Your task to perform on an android device: turn pop-ups off in chrome Image 0: 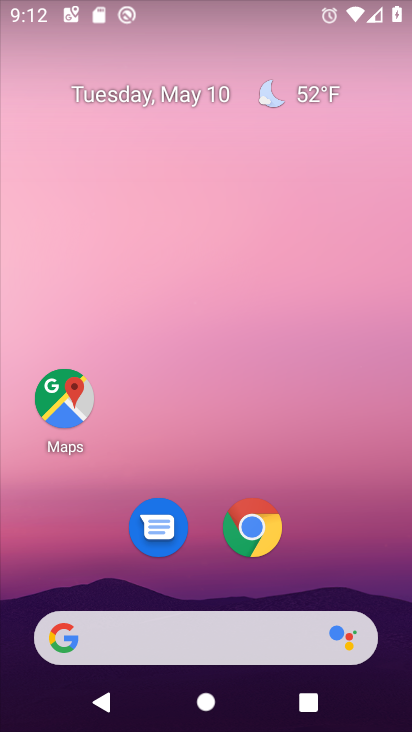
Step 0: click (256, 536)
Your task to perform on an android device: turn pop-ups off in chrome Image 1: 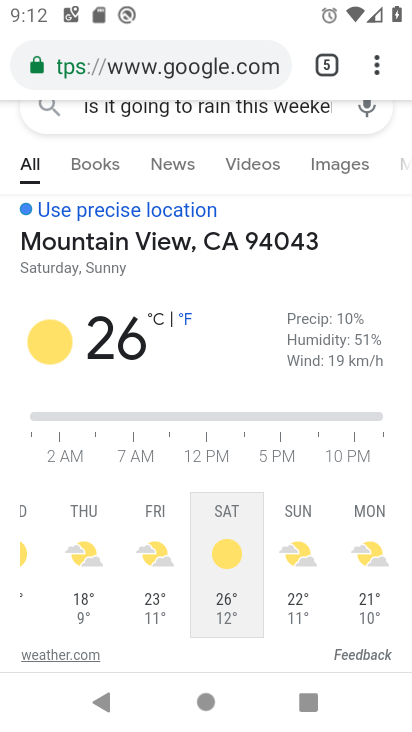
Step 1: click (376, 70)
Your task to perform on an android device: turn pop-ups off in chrome Image 2: 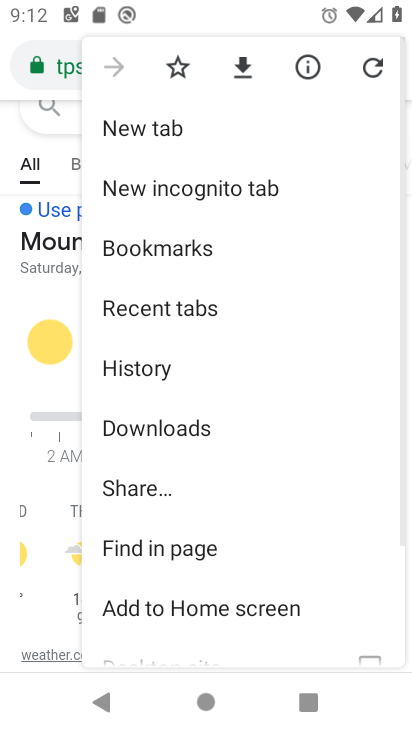
Step 2: drag from (182, 611) to (170, 371)
Your task to perform on an android device: turn pop-ups off in chrome Image 3: 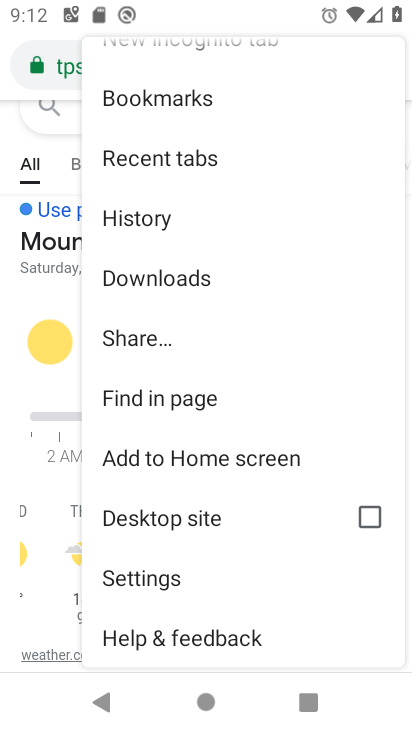
Step 3: click (150, 578)
Your task to perform on an android device: turn pop-ups off in chrome Image 4: 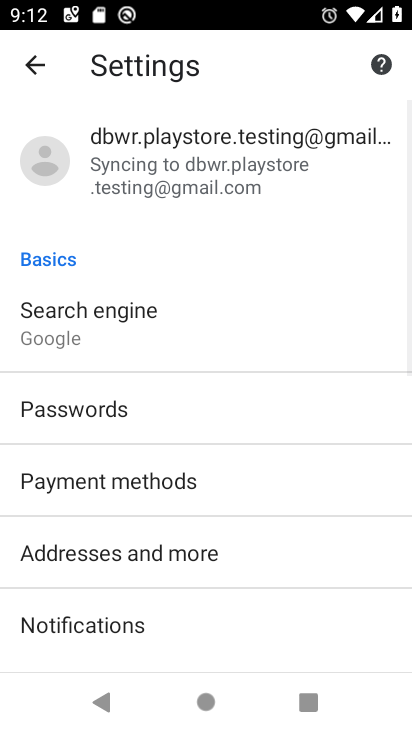
Step 4: drag from (182, 615) to (153, 241)
Your task to perform on an android device: turn pop-ups off in chrome Image 5: 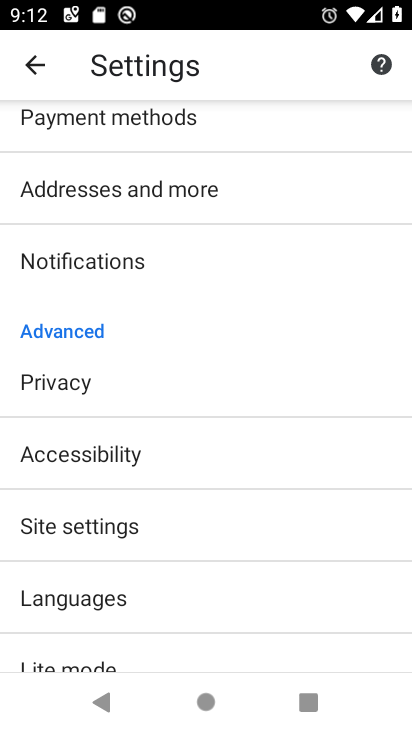
Step 5: click (83, 529)
Your task to perform on an android device: turn pop-ups off in chrome Image 6: 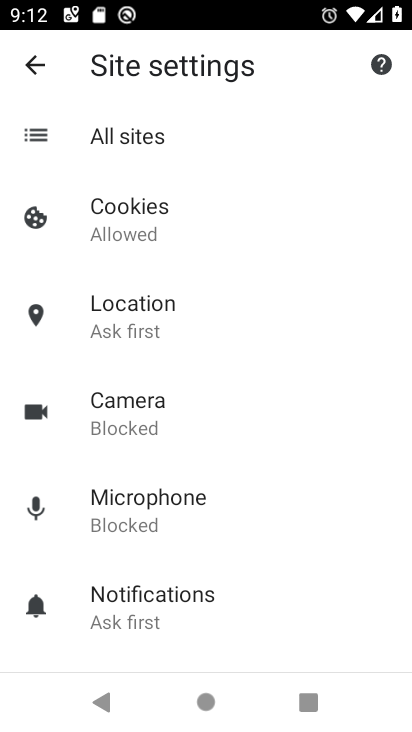
Step 6: drag from (200, 586) to (185, 324)
Your task to perform on an android device: turn pop-ups off in chrome Image 7: 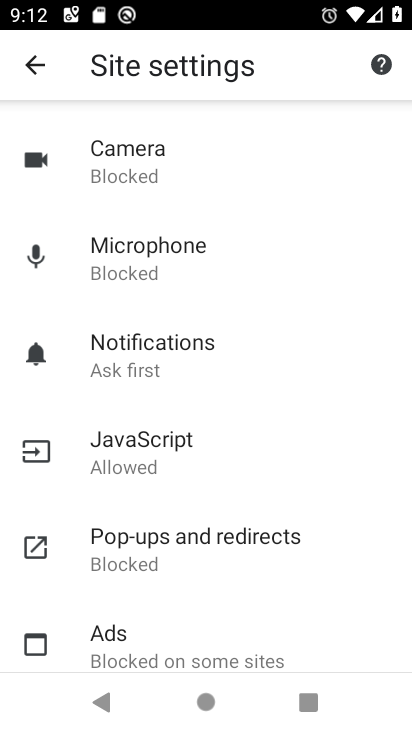
Step 7: click (117, 545)
Your task to perform on an android device: turn pop-ups off in chrome Image 8: 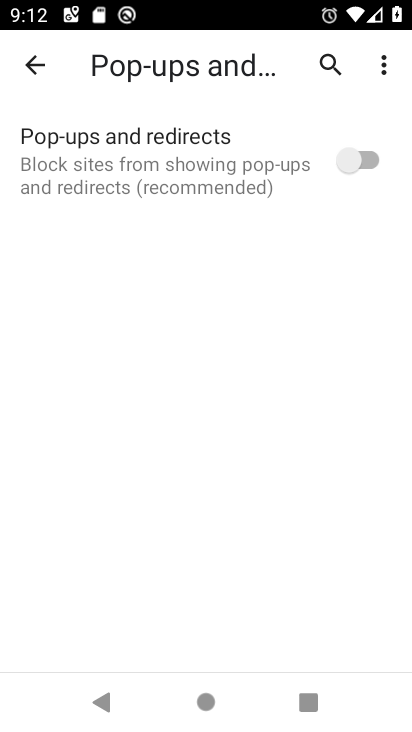
Step 8: task complete